Your task to perform on an android device: turn off improve location accuracy Image 0: 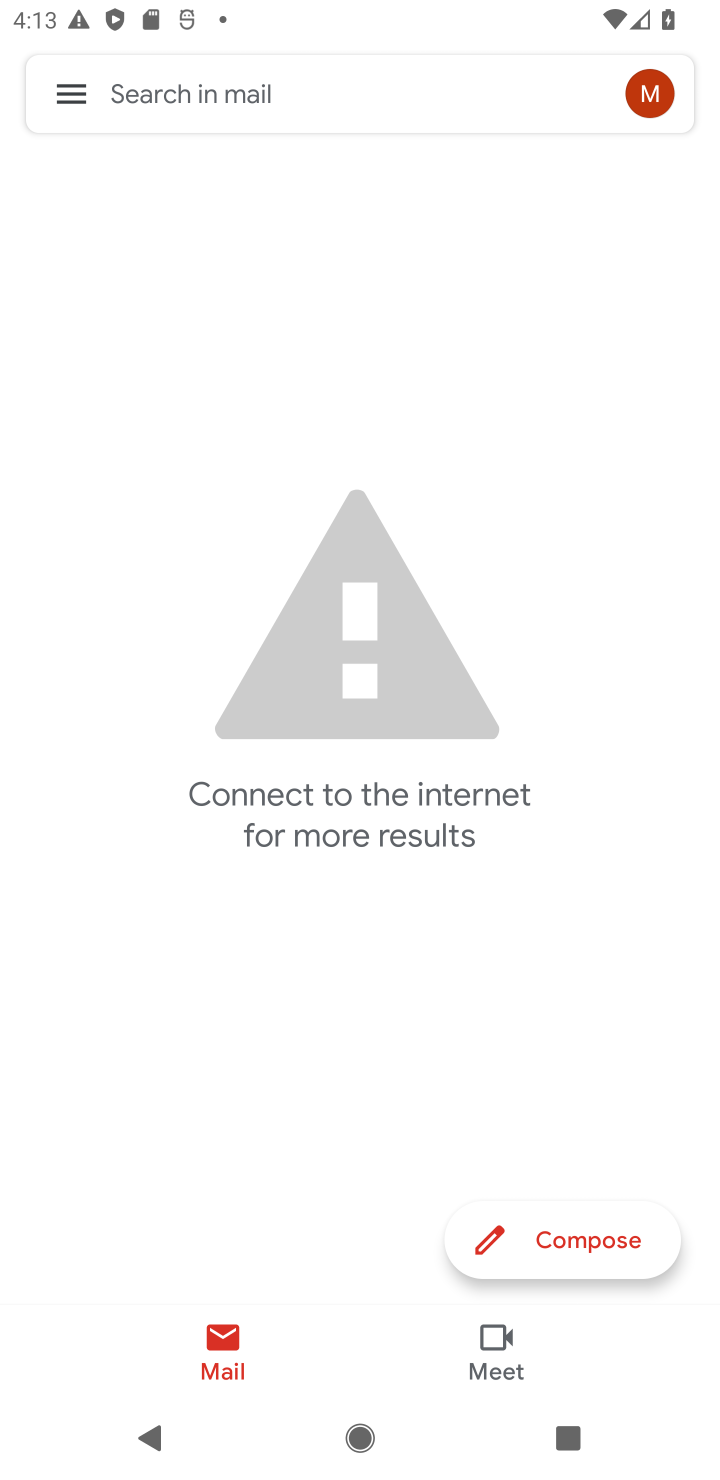
Step 0: press back button
Your task to perform on an android device: turn off improve location accuracy Image 1: 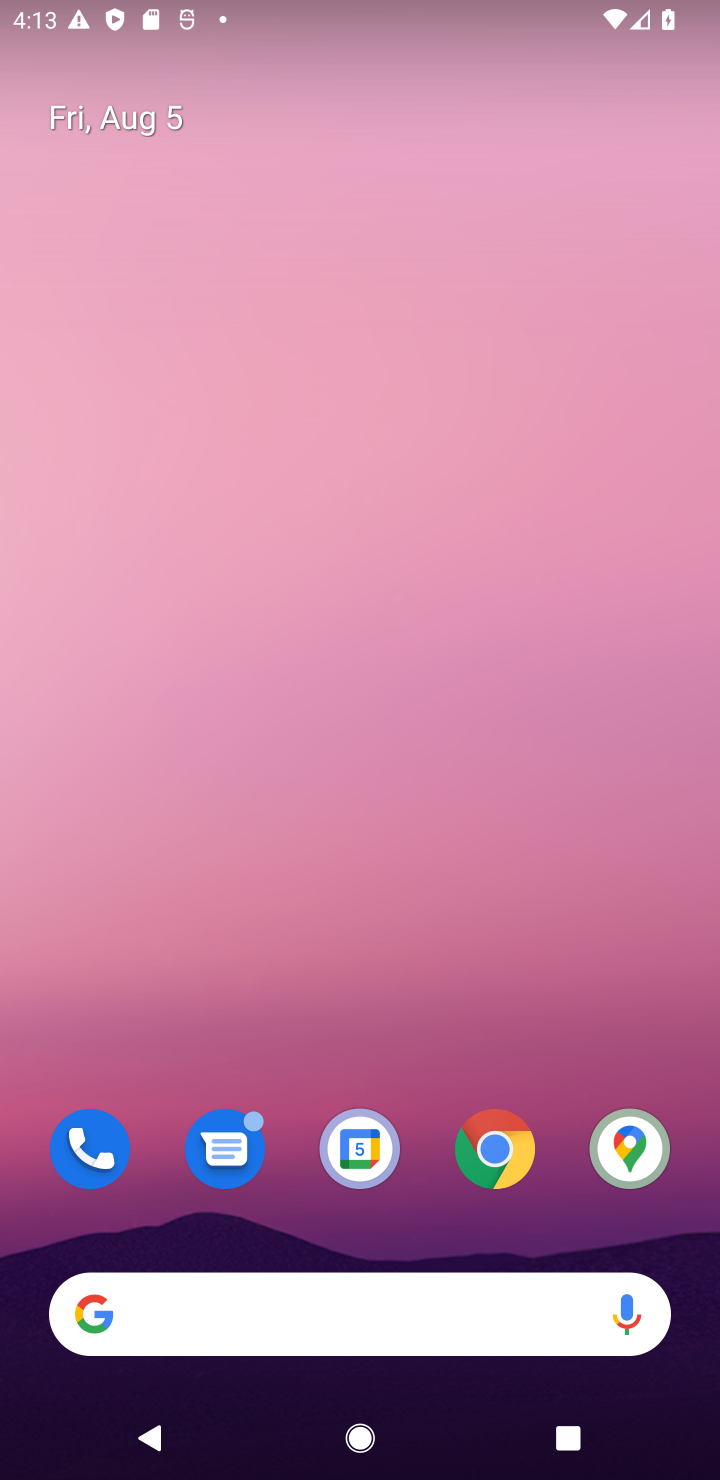
Step 1: drag from (349, 1247) to (457, 15)
Your task to perform on an android device: turn off improve location accuracy Image 2: 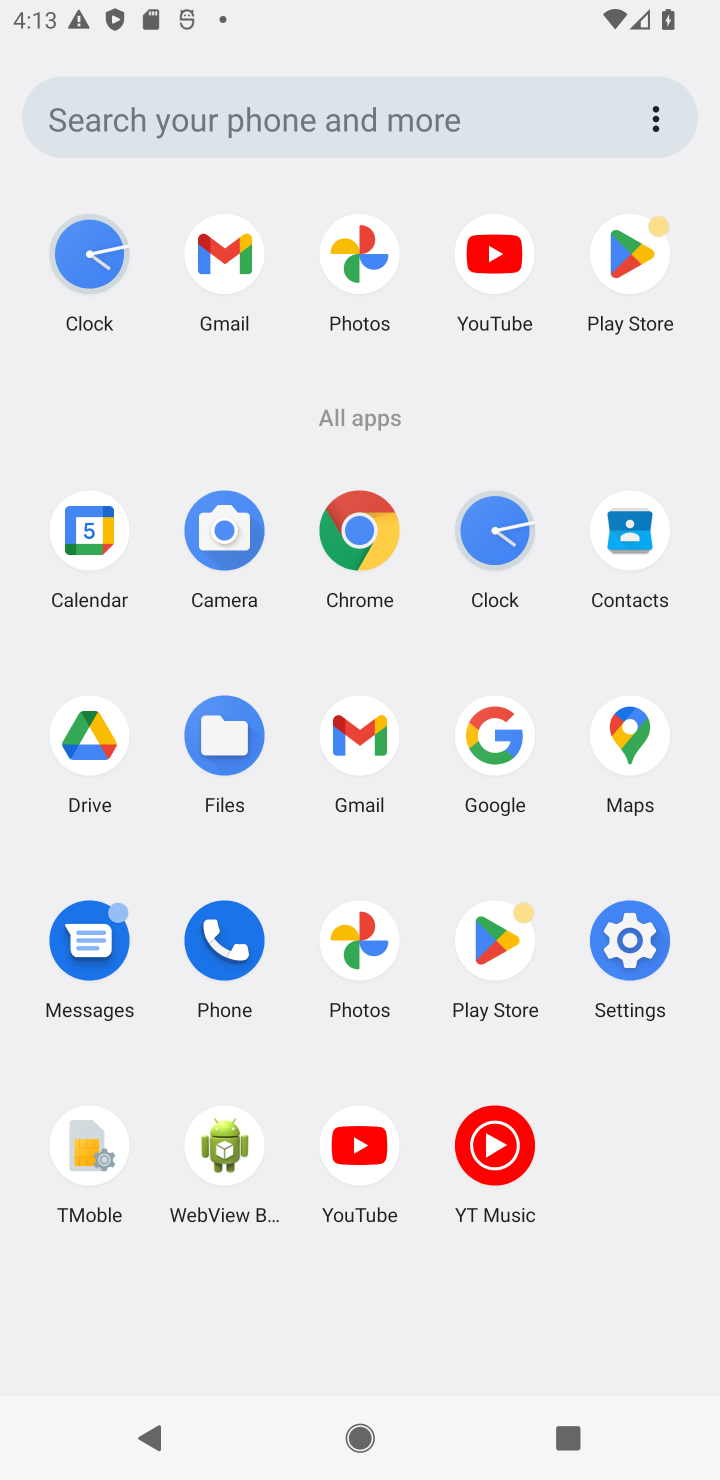
Step 2: click (629, 939)
Your task to perform on an android device: turn off improve location accuracy Image 3: 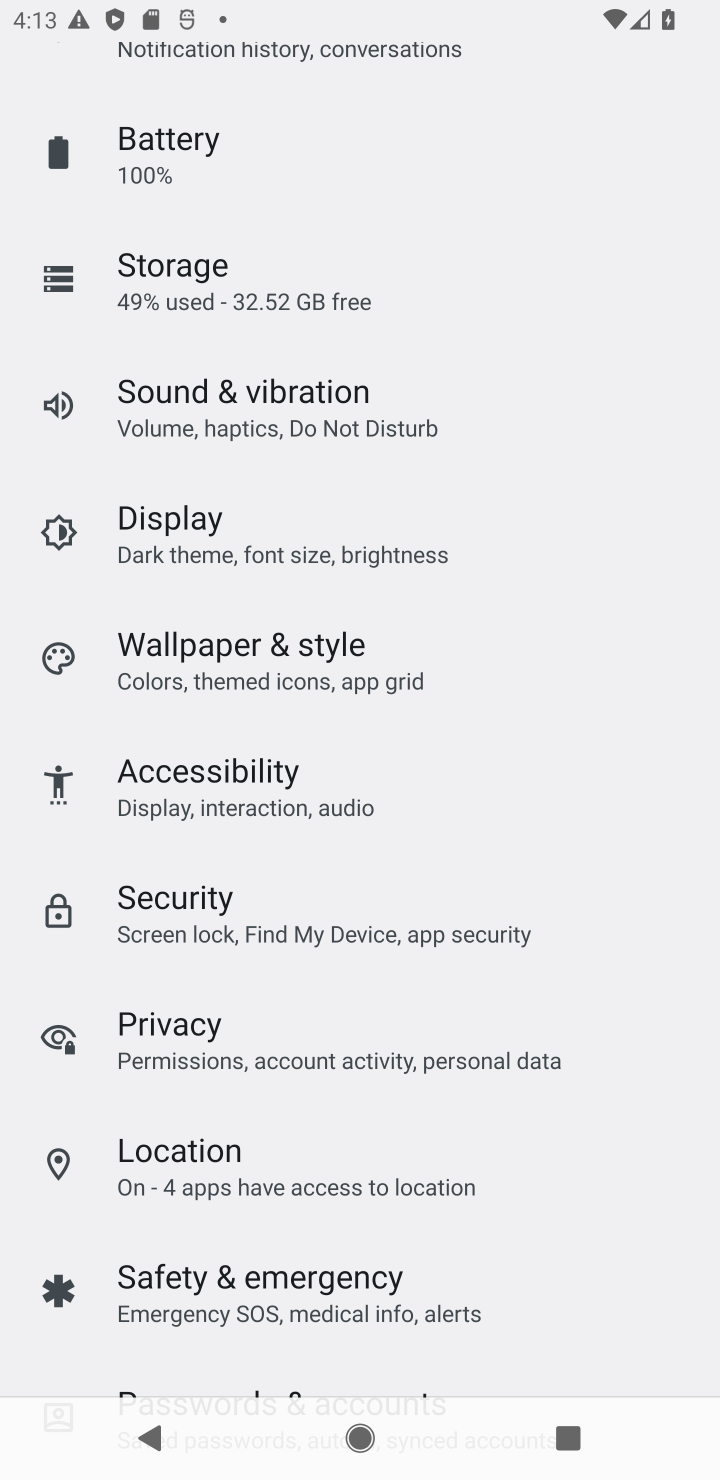
Step 3: click (338, 1141)
Your task to perform on an android device: turn off improve location accuracy Image 4: 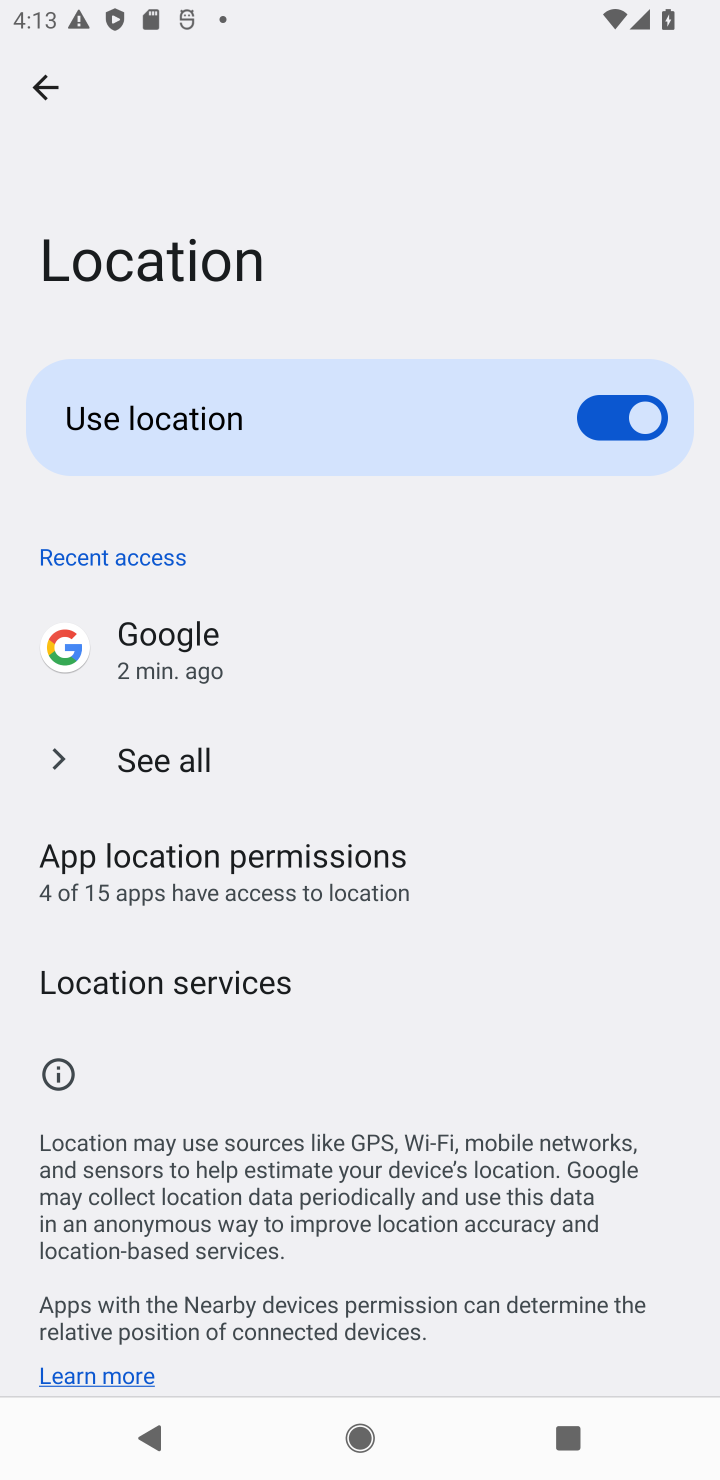
Step 4: drag from (377, 1186) to (427, 159)
Your task to perform on an android device: turn off improve location accuracy Image 5: 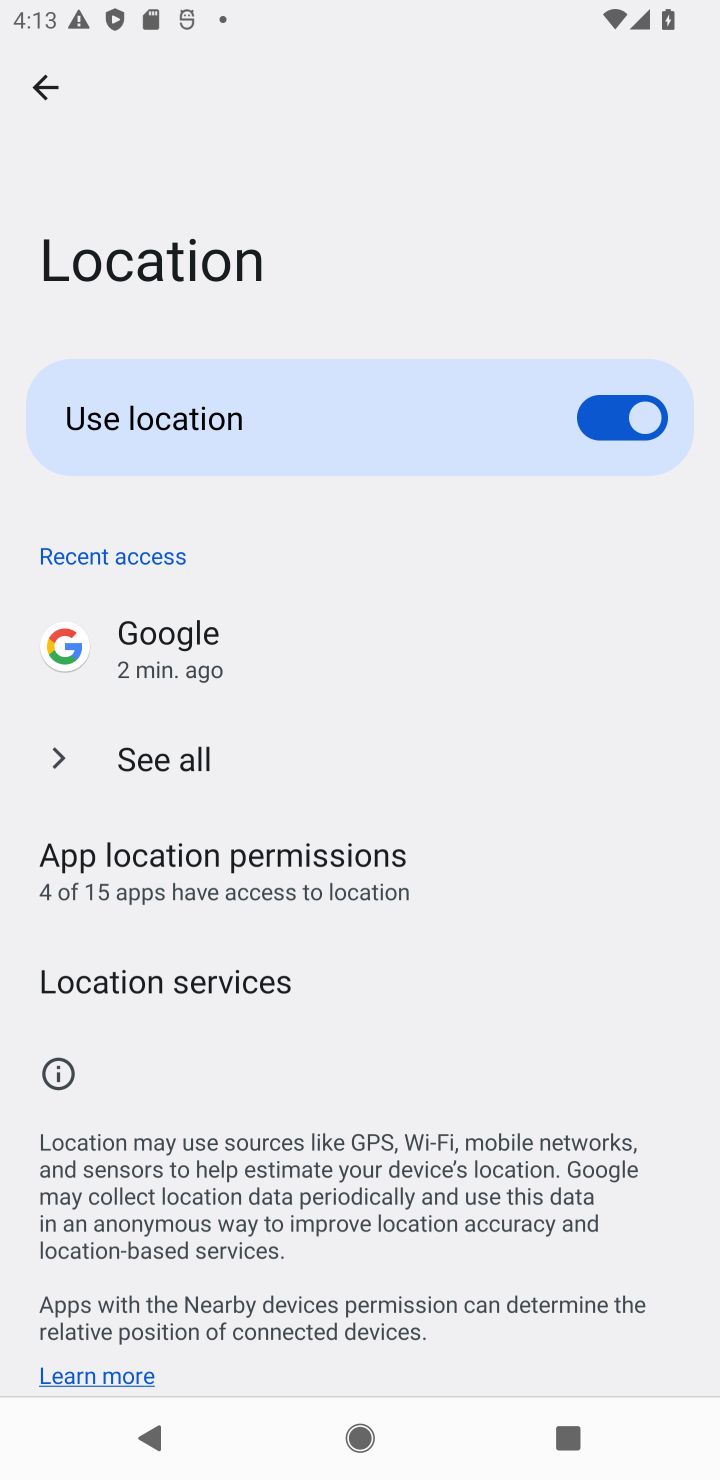
Step 5: click (182, 922)
Your task to perform on an android device: turn off improve location accuracy Image 6: 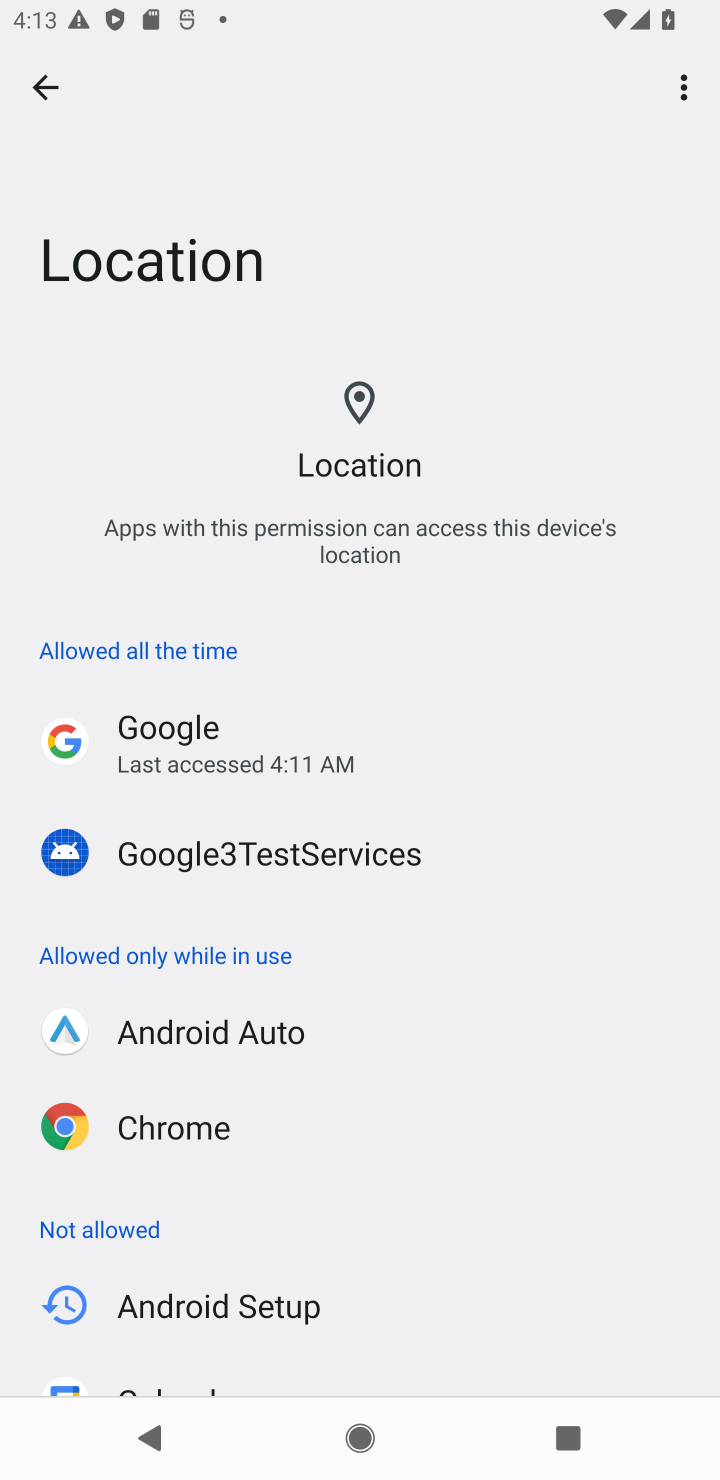
Step 6: click (32, 90)
Your task to perform on an android device: turn off improve location accuracy Image 7: 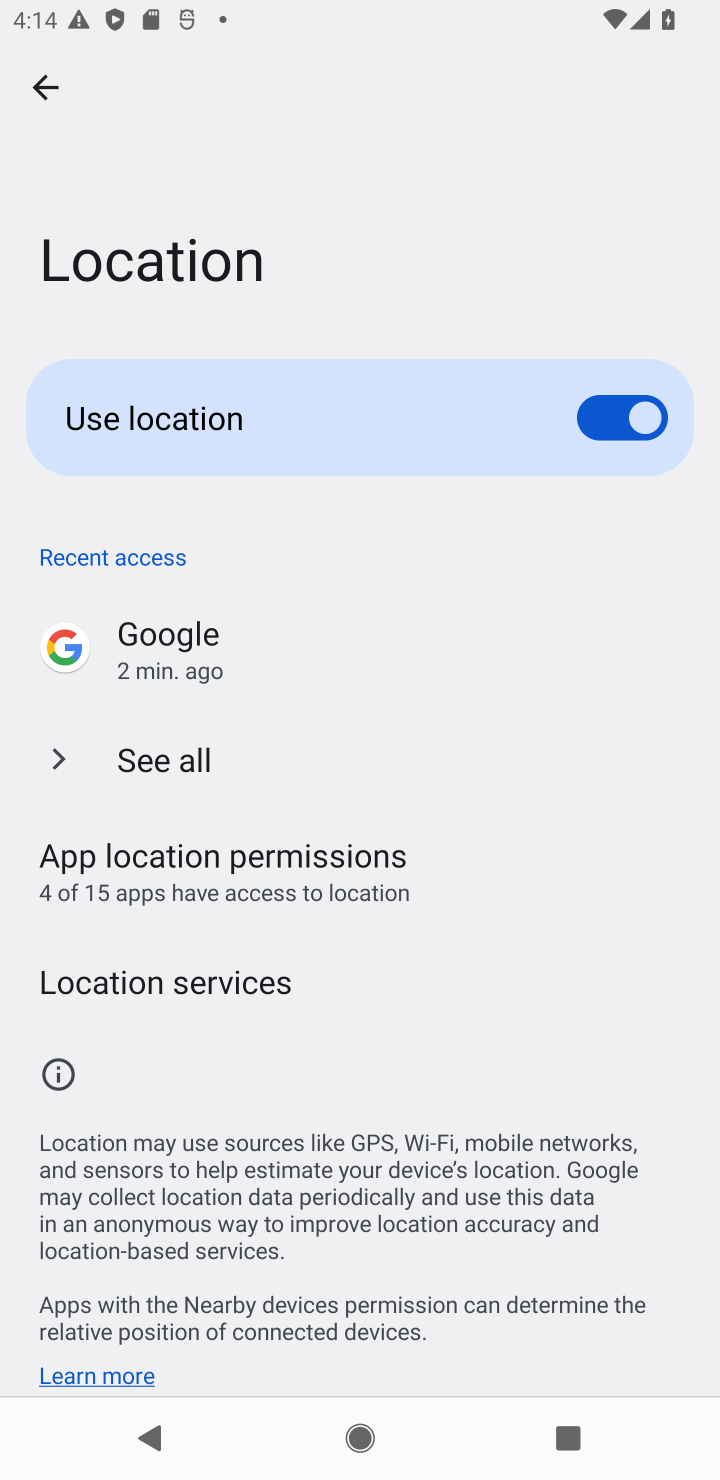
Step 7: click (200, 982)
Your task to perform on an android device: turn off improve location accuracy Image 8: 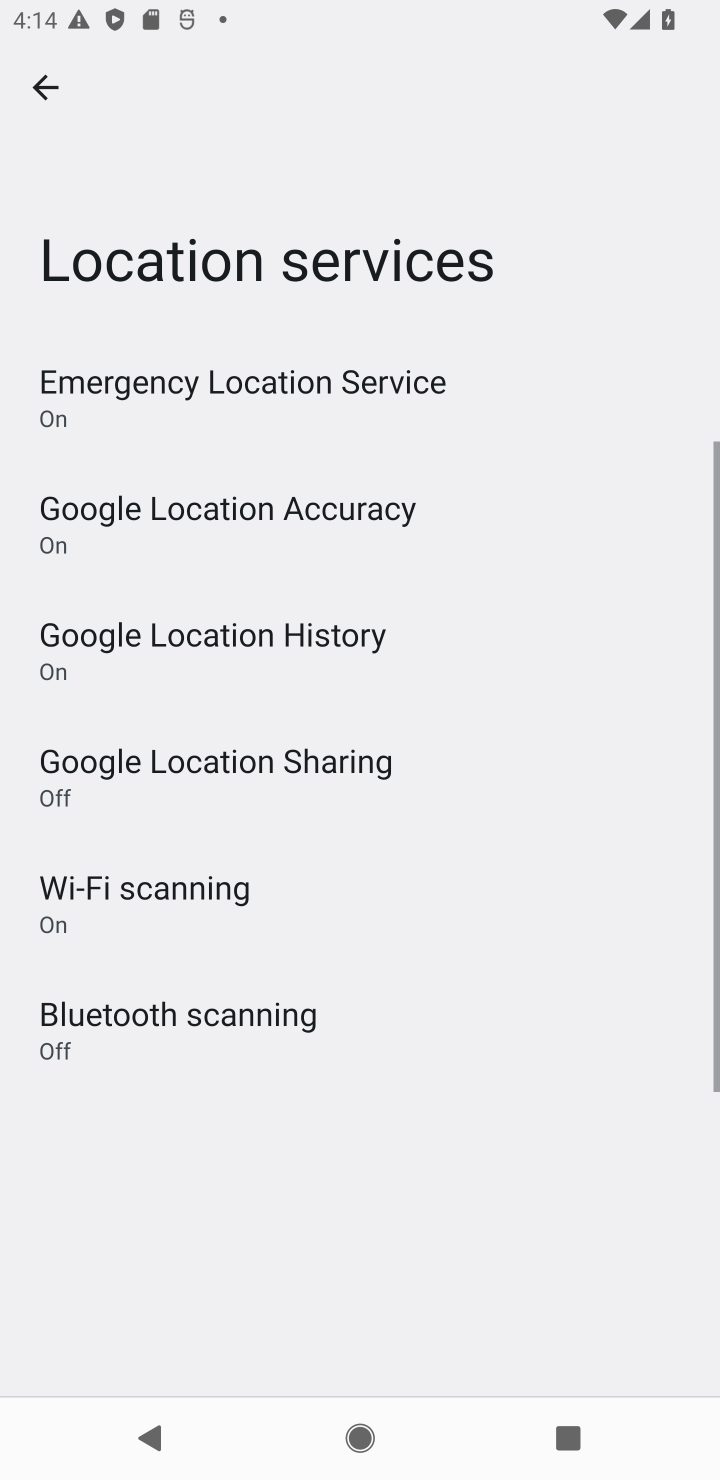
Step 8: click (243, 522)
Your task to perform on an android device: turn off improve location accuracy Image 9: 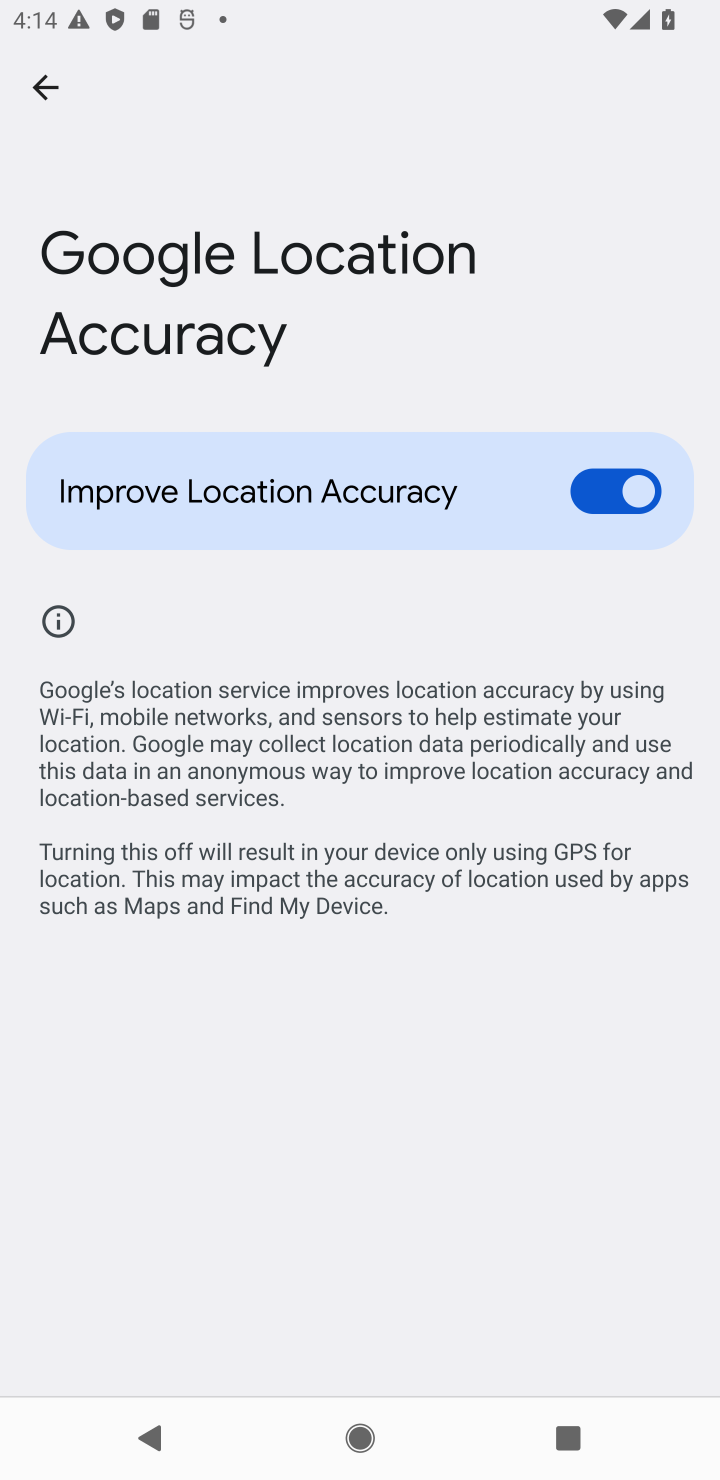
Step 9: click (611, 497)
Your task to perform on an android device: turn off improve location accuracy Image 10: 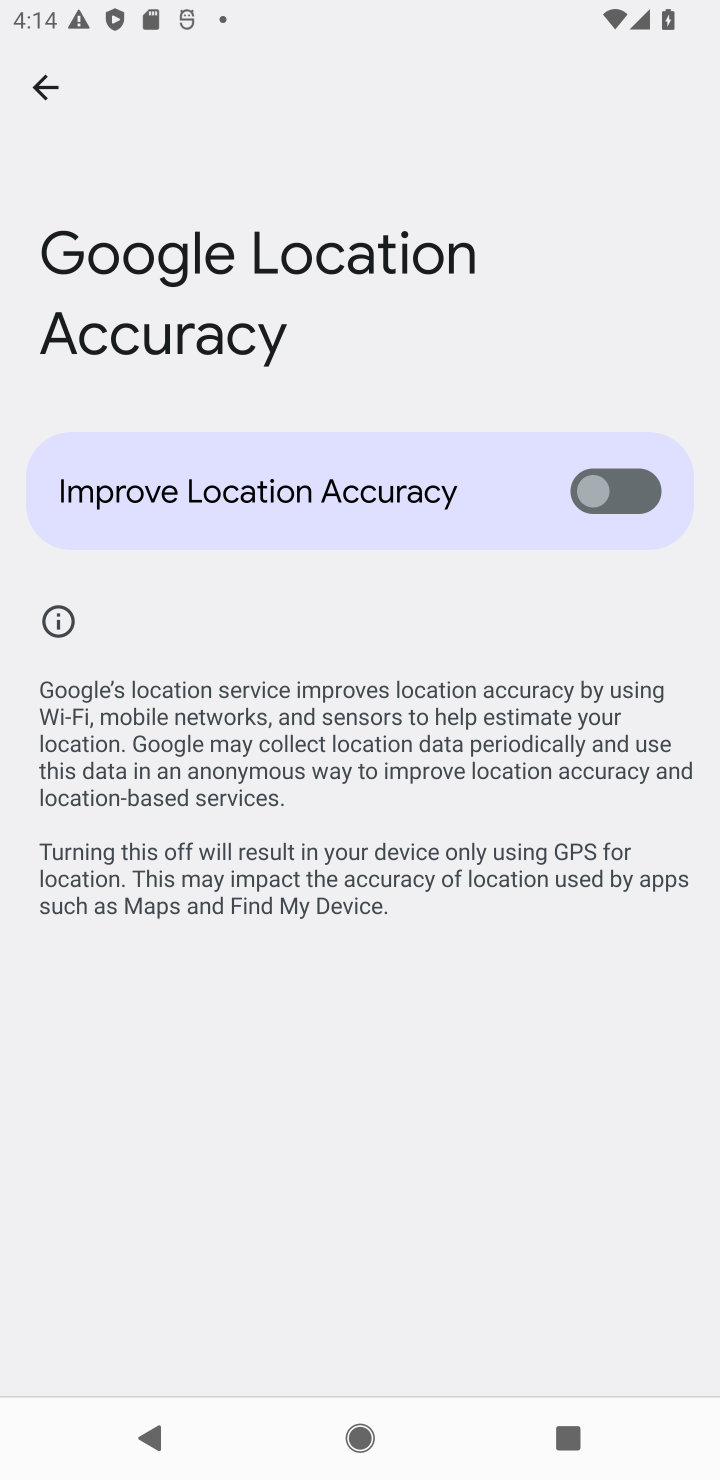
Step 10: task complete